Your task to perform on an android device: open app "Microsoft Excel" (install if not already installed) and go to login screen Image 0: 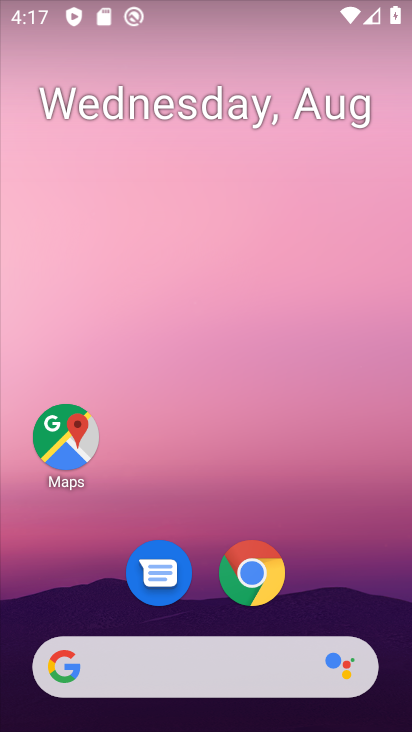
Step 0: drag from (227, 490) to (217, 14)
Your task to perform on an android device: open app "Microsoft Excel" (install if not already installed) and go to login screen Image 1: 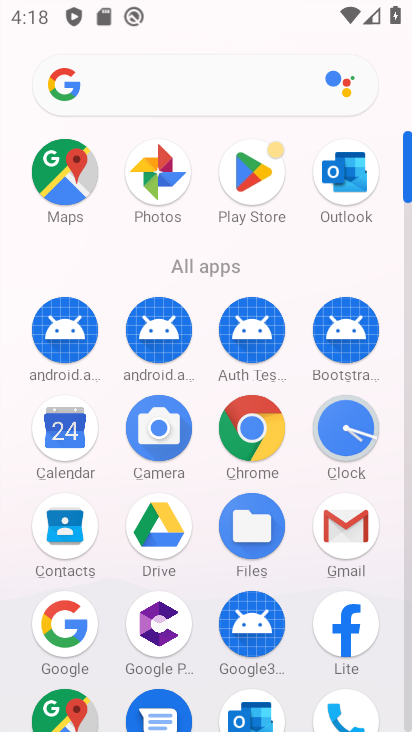
Step 1: click (242, 180)
Your task to perform on an android device: open app "Microsoft Excel" (install if not already installed) and go to login screen Image 2: 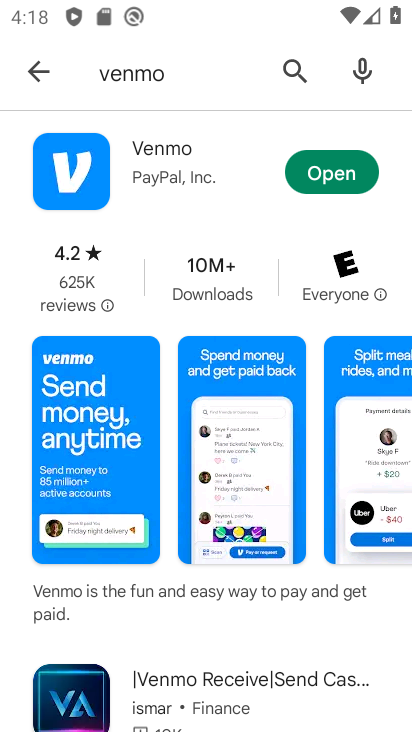
Step 2: click (292, 70)
Your task to perform on an android device: open app "Microsoft Excel" (install if not already installed) and go to login screen Image 3: 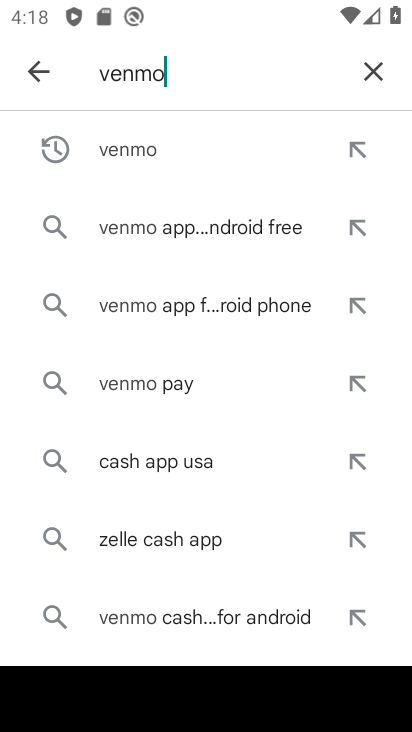
Step 3: click (362, 71)
Your task to perform on an android device: open app "Microsoft Excel" (install if not already installed) and go to login screen Image 4: 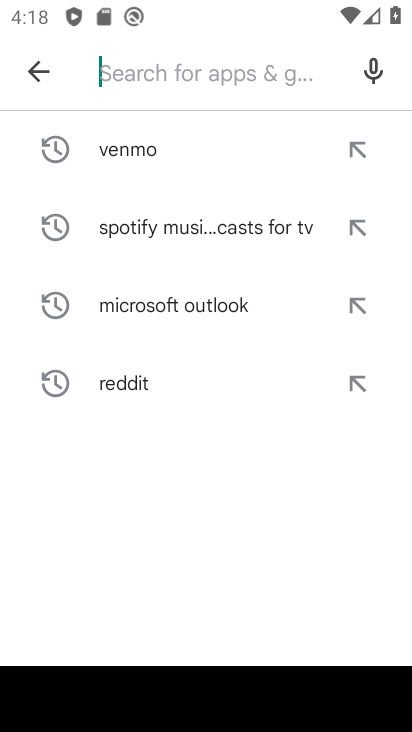
Step 4: click (367, 71)
Your task to perform on an android device: open app "Microsoft Excel" (install if not already installed) and go to login screen Image 5: 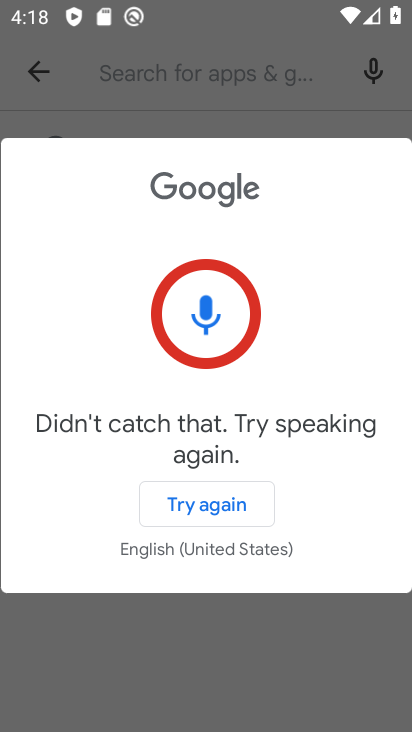
Step 5: click (162, 97)
Your task to perform on an android device: open app "Microsoft Excel" (install if not already installed) and go to login screen Image 6: 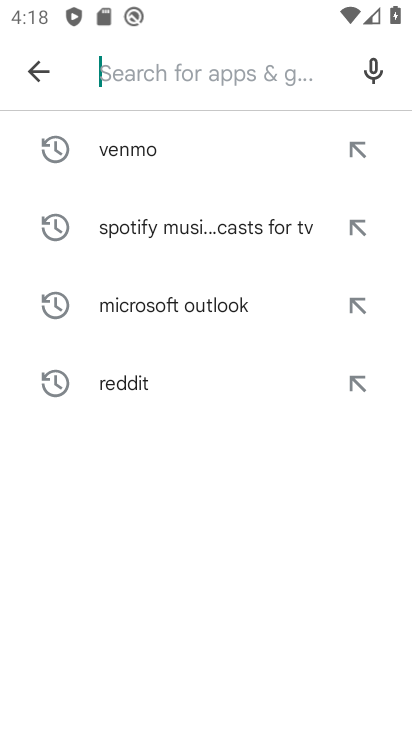
Step 6: type "Microsoft Excel"
Your task to perform on an android device: open app "Microsoft Excel" (install if not already installed) and go to login screen Image 7: 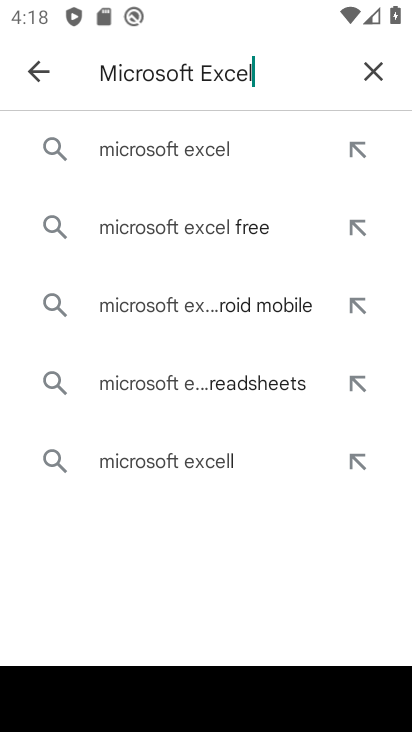
Step 7: click (144, 147)
Your task to perform on an android device: open app "Microsoft Excel" (install if not already installed) and go to login screen Image 8: 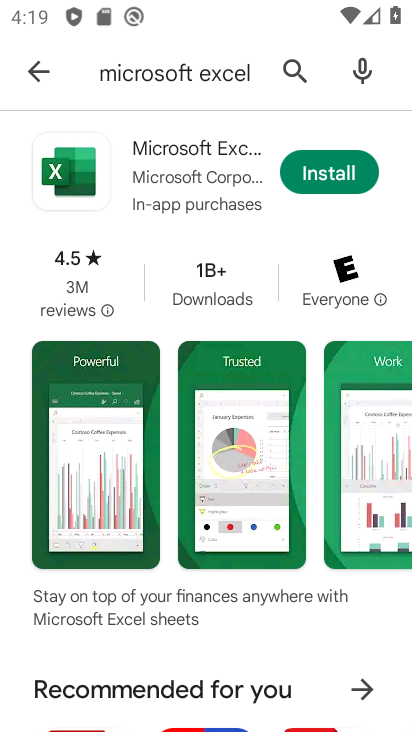
Step 8: click (301, 170)
Your task to perform on an android device: open app "Microsoft Excel" (install if not already installed) and go to login screen Image 9: 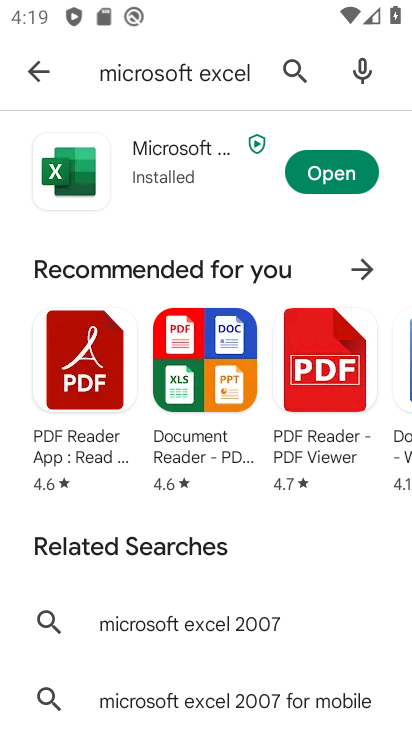
Step 9: click (301, 170)
Your task to perform on an android device: open app "Microsoft Excel" (install if not already installed) and go to login screen Image 10: 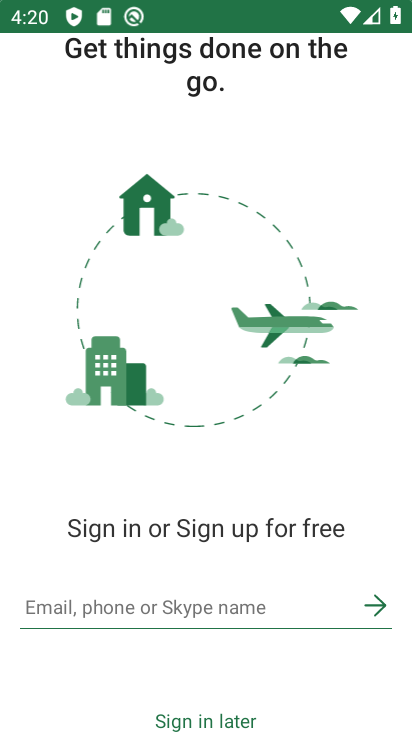
Step 10: task complete